Your task to perform on an android device: Search for sushi restaurants on Maps Image 0: 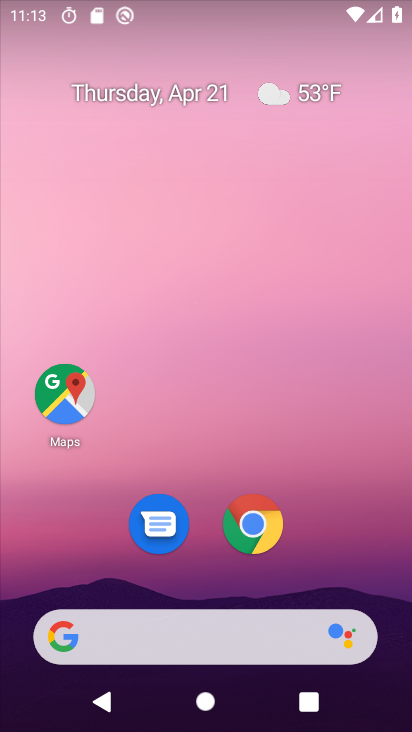
Step 0: click (49, 387)
Your task to perform on an android device: Search for sushi restaurants on Maps Image 1: 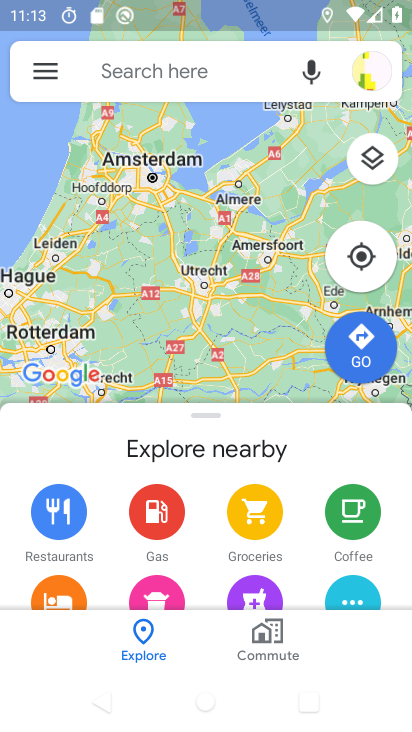
Step 1: click (158, 55)
Your task to perform on an android device: Search for sushi restaurants on Maps Image 2: 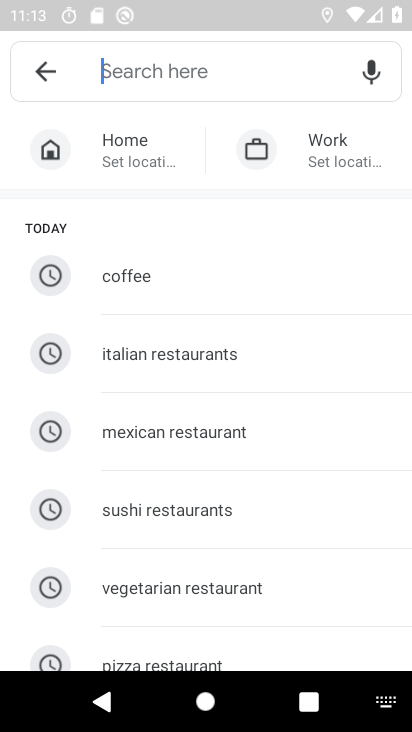
Step 2: click (193, 504)
Your task to perform on an android device: Search for sushi restaurants on Maps Image 3: 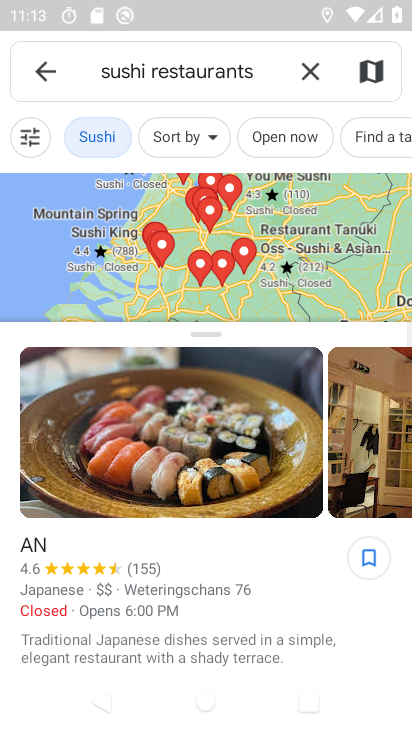
Step 3: task complete